Your task to perform on an android device: delete a single message in the gmail app Image 0: 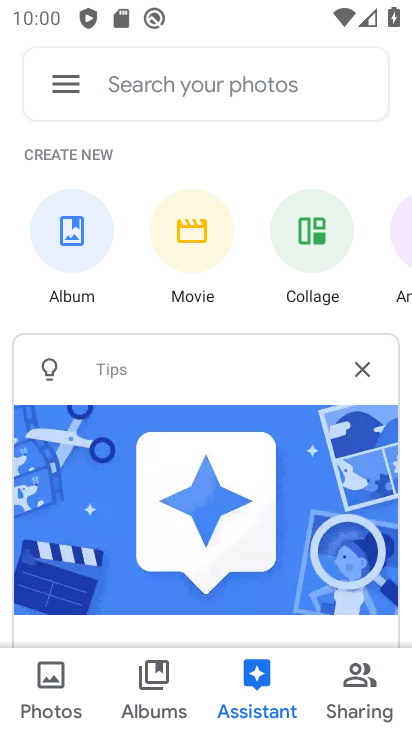
Step 0: press home button
Your task to perform on an android device: delete a single message in the gmail app Image 1: 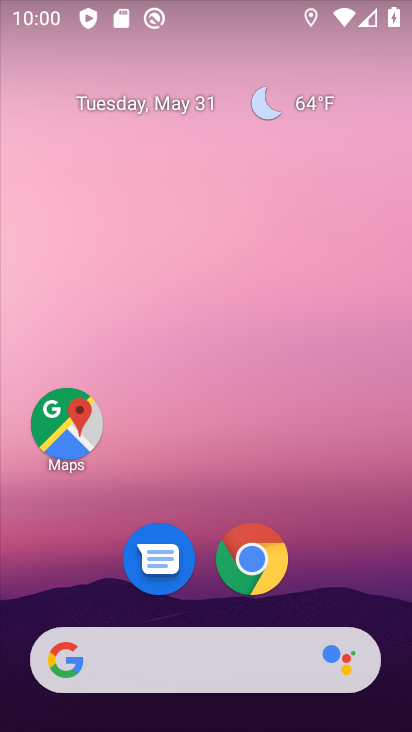
Step 1: drag from (90, 626) to (251, 0)
Your task to perform on an android device: delete a single message in the gmail app Image 2: 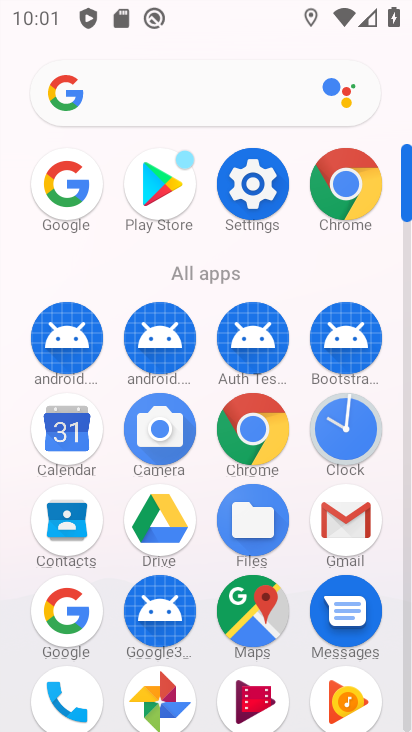
Step 2: drag from (188, 656) to (243, 322)
Your task to perform on an android device: delete a single message in the gmail app Image 3: 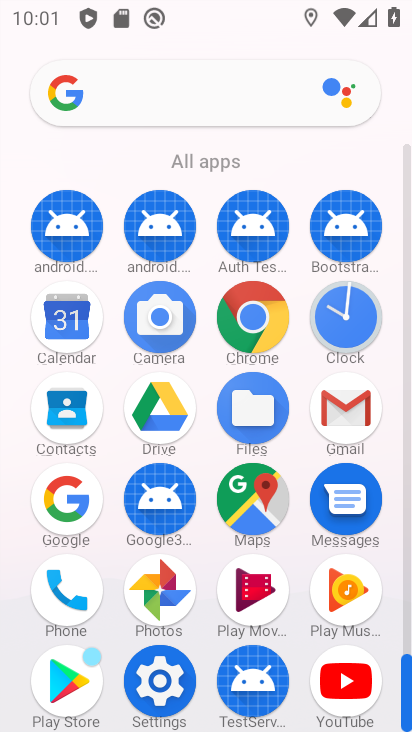
Step 3: click (328, 408)
Your task to perform on an android device: delete a single message in the gmail app Image 4: 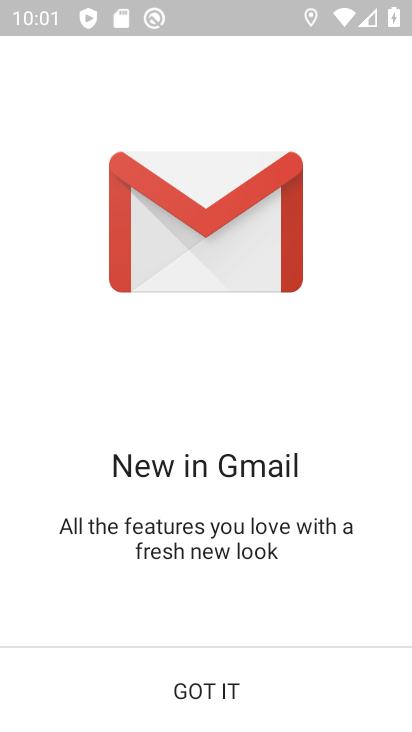
Step 4: click (215, 710)
Your task to perform on an android device: delete a single message in the gmail app Image 5: 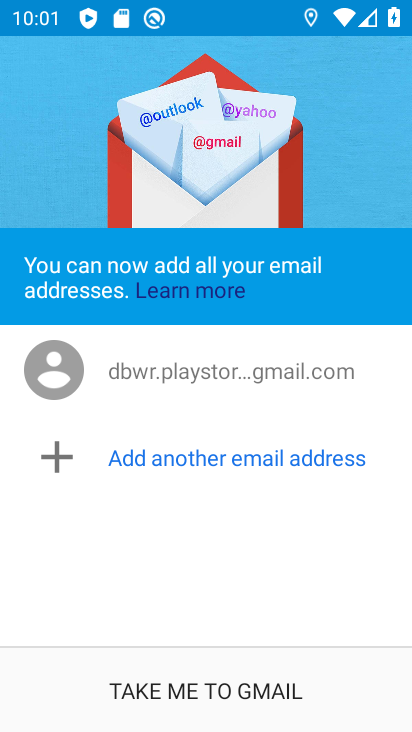
Step 5: click (256, 699)
Your task to perform on an android device: delete a single message in the gmail app Image 6: 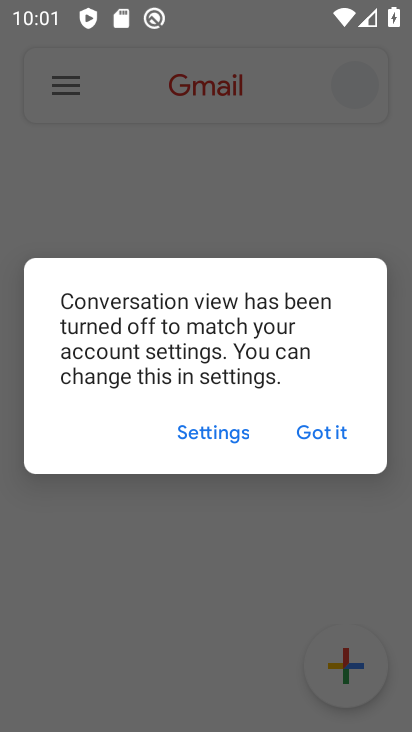
Step 6: click (361, 423)
Your task to perform on an android device: delete a single message in the gmail app Image 7: 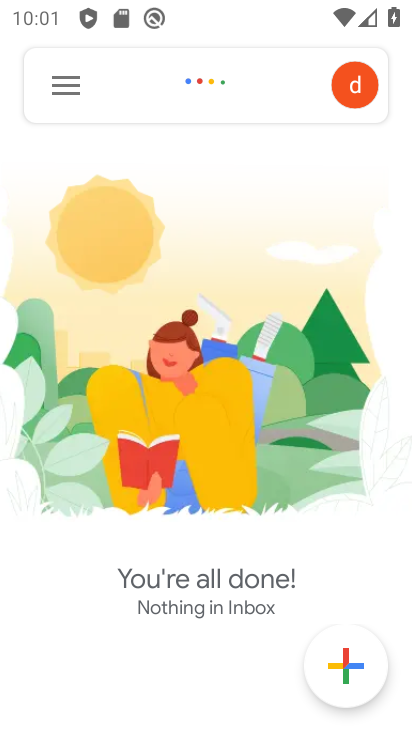
Step 7: click (68, 88)
Your task to perform on an android device: delete a single message in the gmail app Image 8: 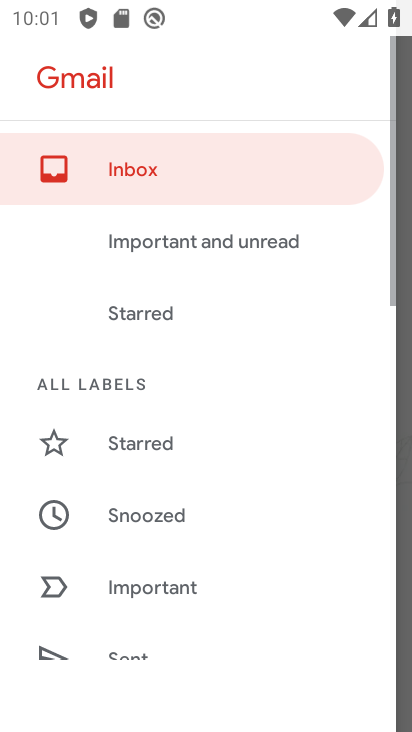
Step 8: drag from (120, 656) to (217, 195)
Your task to perform on an android device: delete a single message in the gmail app Image 9: 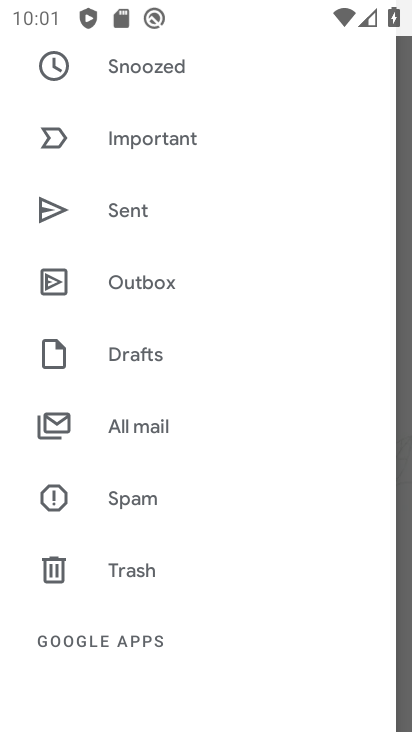
Step 9: click (176, 426)
Your task to perform on an android device: delete a single message in the gmail app Image 10: 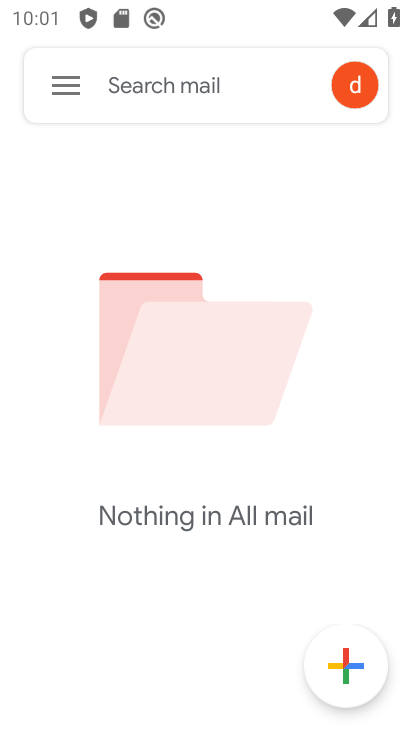
Step 10: task complete